Your task to perform on an android device: Open Youtube and go to the subscriptions tab Image 0: 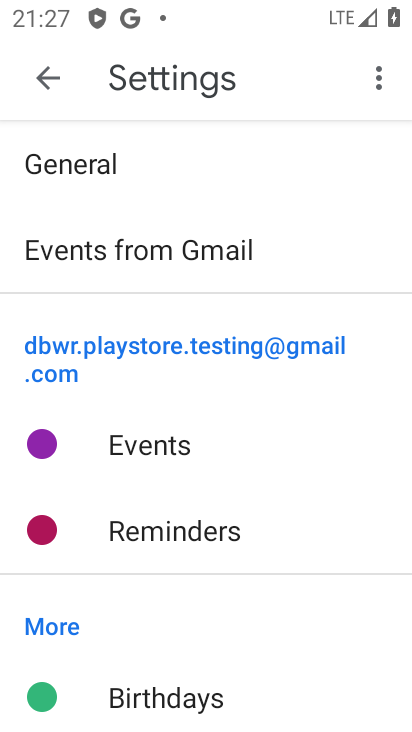
Step 0: press back button
Your task to perform on an android device: Open Youtube and go to the subscriptions tab Image 1: 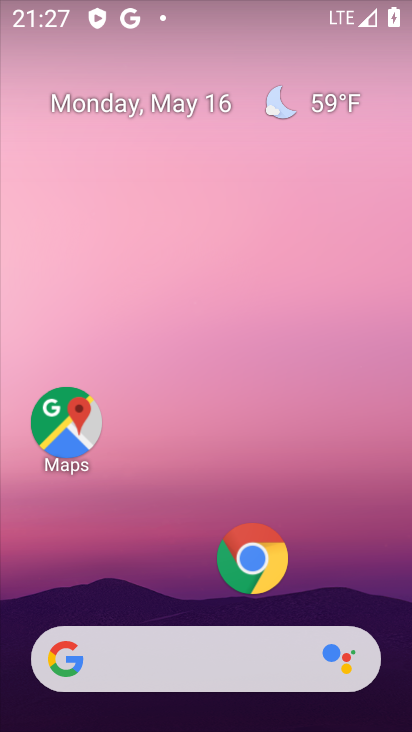
Step 1: drag from (147, 567) to (249, 71)
Your task to perform on an android device: Open Youtube and go to the subscriptions tab Image 2: 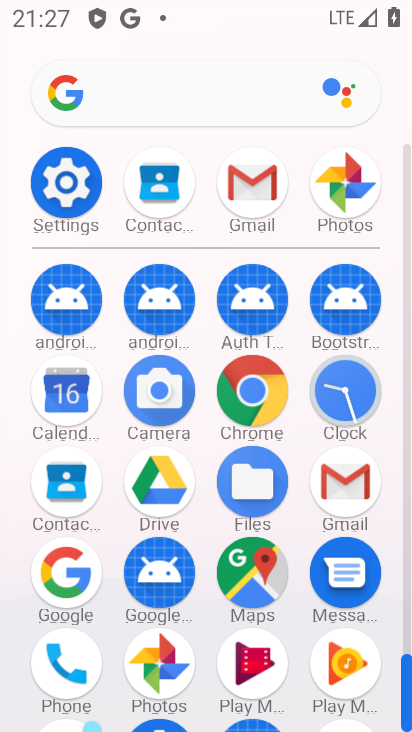
Step 2: drag from (204, 568) to (310, 150)
Your task to perform on an android device: Open Youtube and go to the subscriptions tab Image 3: 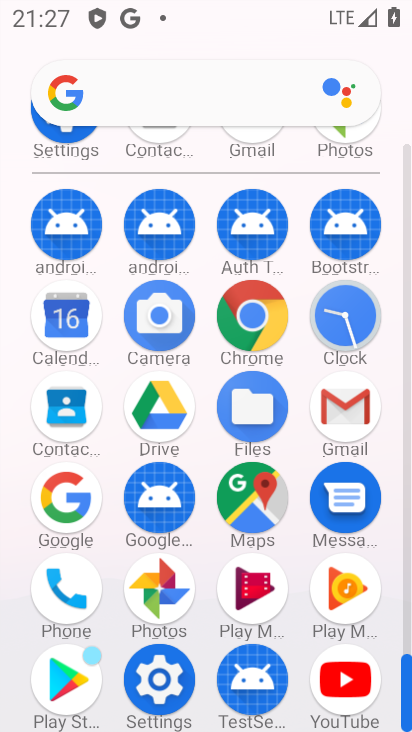
Step 3: click (353, 668)
Your task to perform on an android device: Open Youtube and go to the subscriptions tab Image 4: 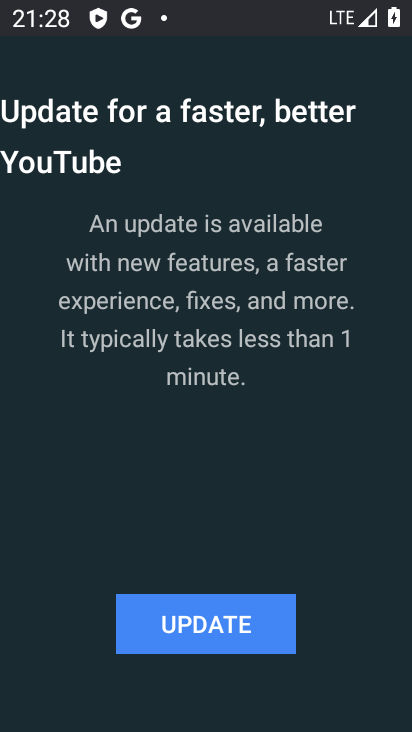
Step 4: click (216, 620)
Your task to perform on an android device: Open Youtube and go to the subscriptions tab Image 5: 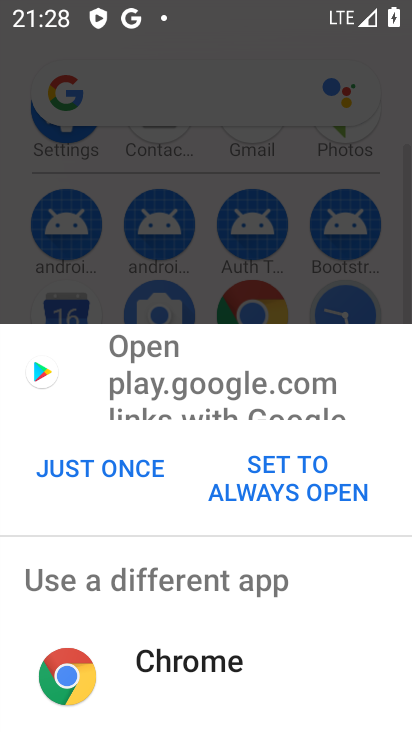
Step 5: click (54, 473)
Your task to perform on an android device: Open Youtube and go to the subscriptions tab Image 6: 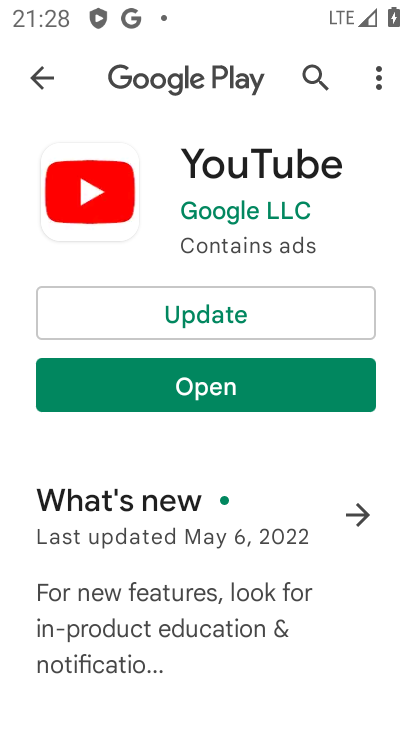
Step 6: click (189, 325)
Your task to perform on an android device: Open Youtube and go to the subscriptions tab Image 7: 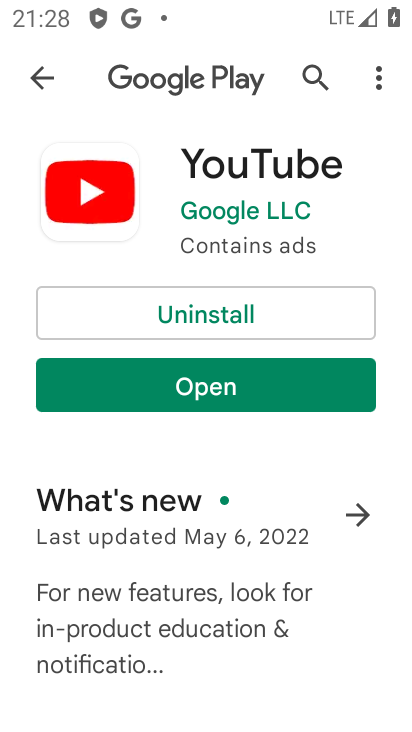
Step 7: click (220, 388)
Your task to perform on an android device: Open Youtube and go to the subscriptions tab Image 8: 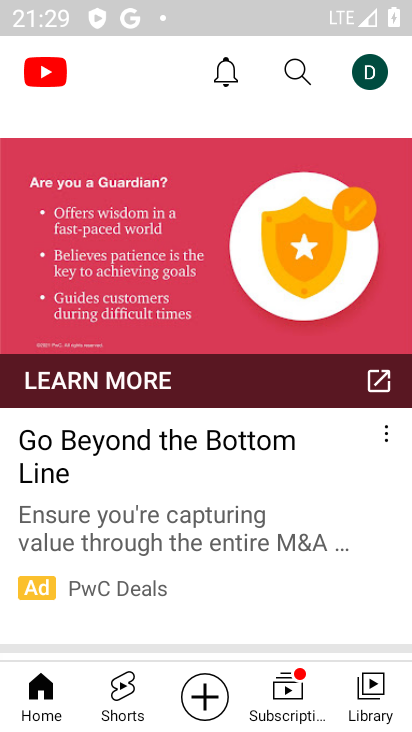
Step 8: click (297, 690)
Your task to perform on an android device: Open Youtube and go to the subscriptions tab Image 9: 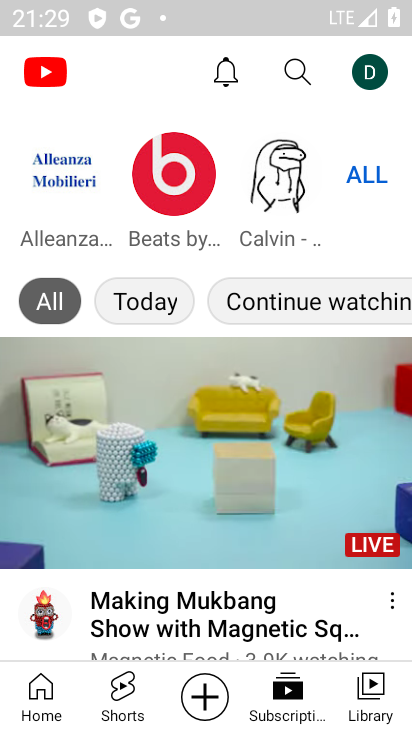
Step 9: task complete